Your task to perform on an android device: remove spam from my inbox in the gmail app Image 0: 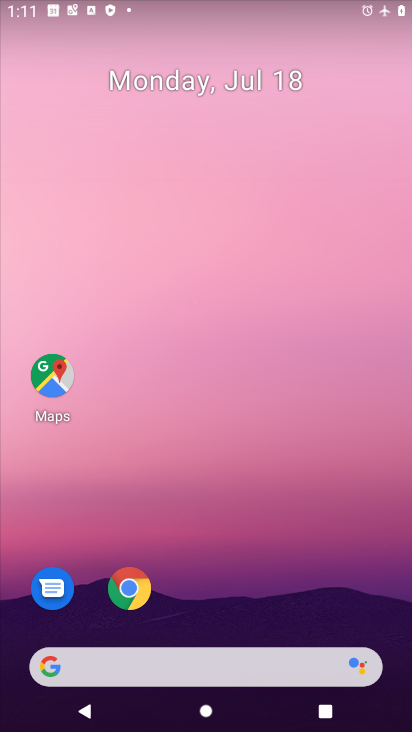
Step 0: drag from (285, 656) to (207, 141)
Your task to perform on an android device: remove spam from my inbox in the gmail app Image 1: 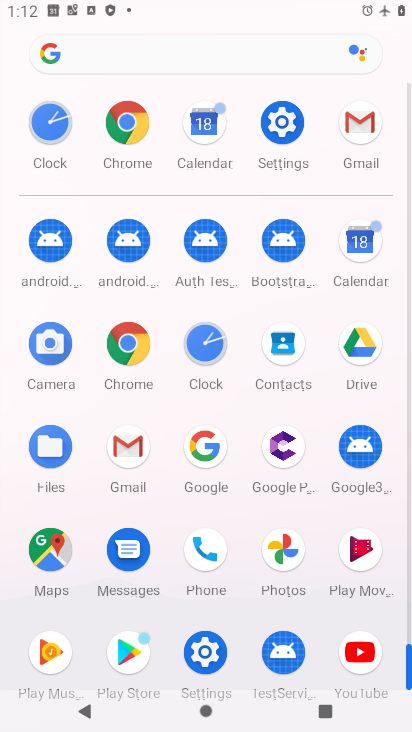
Step 1: click (128, 450)
Your task to perform on an android device: remove spam from my inbox in the gmail app Image 2: 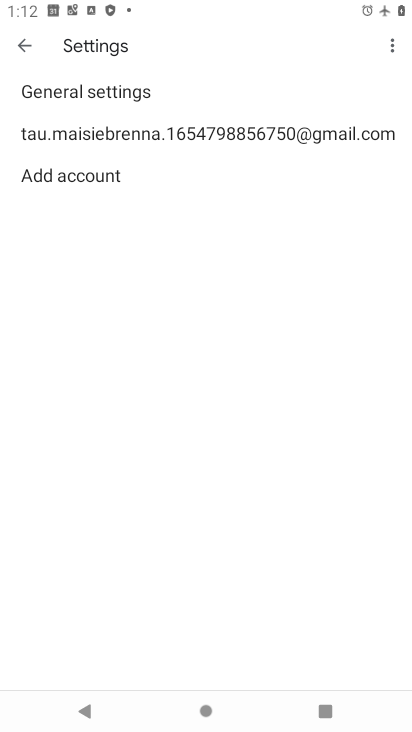
Step 2: click (25, 49)
Your task to perform on an android device: remove spam from my inbox in the gmail app Image 3: 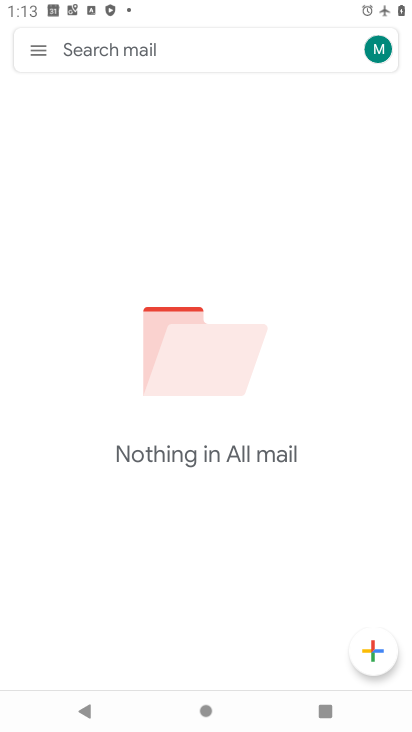
Step 3: click (36, 57)
Your task to perform on an android device: remove spam from my inbox in the gmail app Image 4: 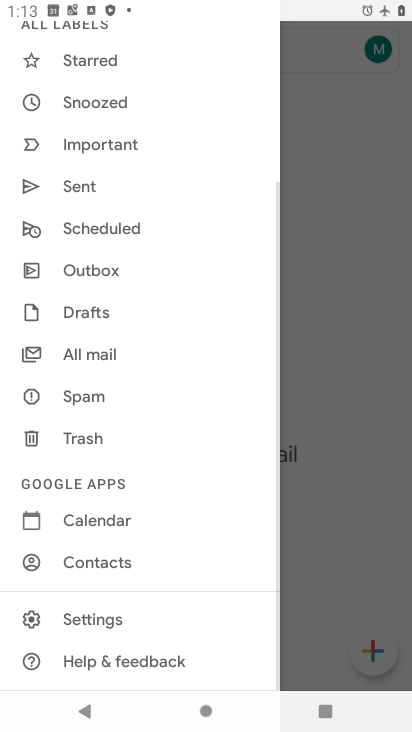
Step 4: click (98, 405)
Your task to perform on an android device: remove spam from my inbox in the gmail app Image 5: 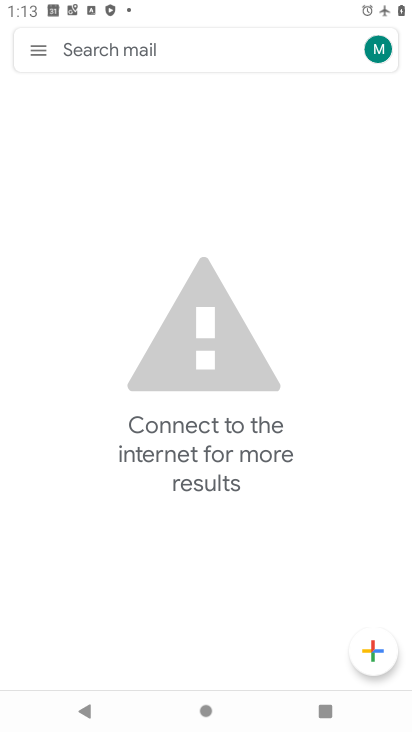
Step 5: task complete